Your task to perform on an android device: Go to Reddit.com Image 0: 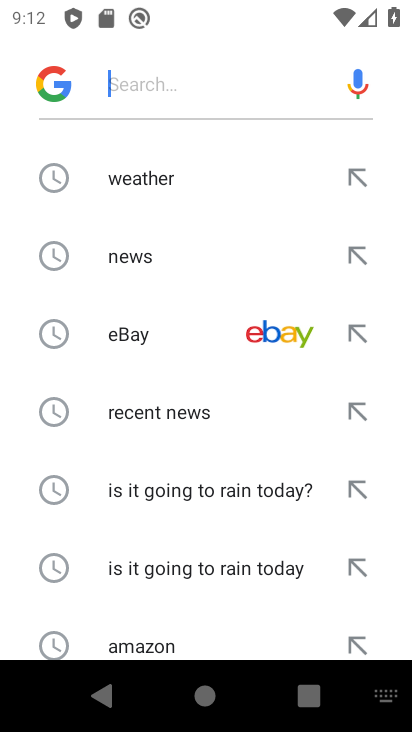
Step 0: press home button
Your task to perform on an android device: Go to Reddit.com Image 1: 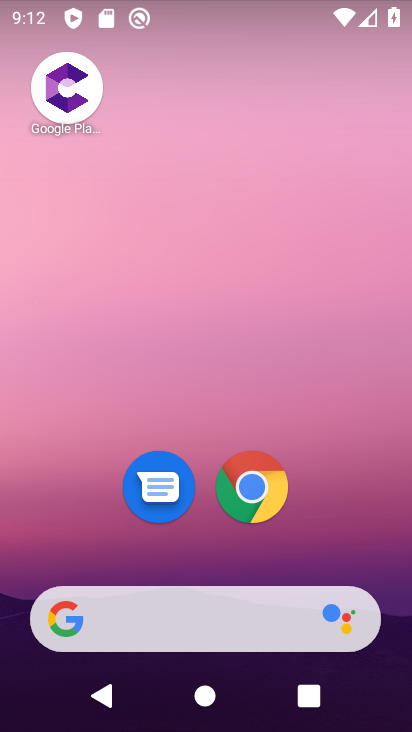
Step 1: click (276, 506)
Your task to perform on an android device: Go to Reddit.com Image 2: 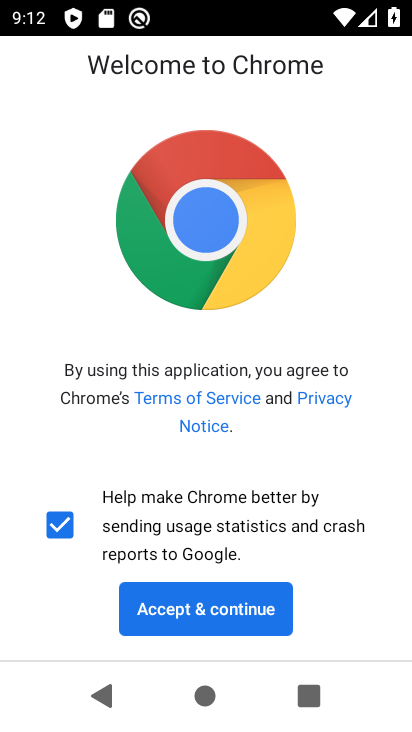
Step 2: click (215, 623)
Your task to perform on an android device: Go to Reddit.com Image 3: 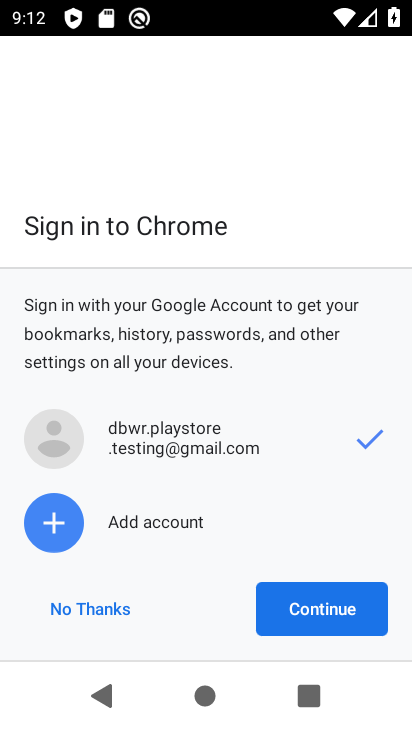
Step 3: click (370, 614)
Your task to perform on an android device: Go to Reddit.com Image 4: 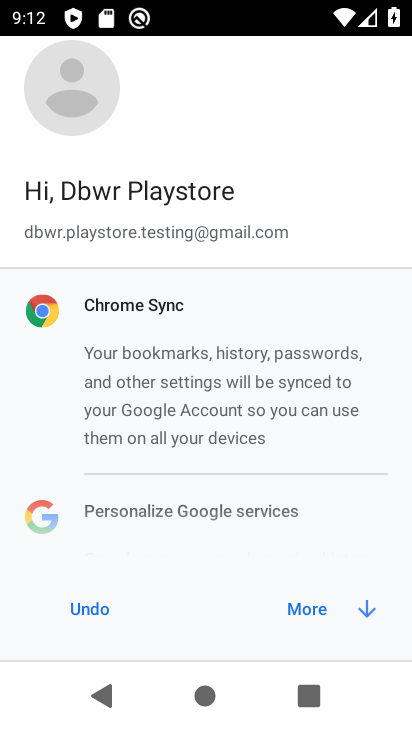
Step 4: click (324, 615)
Your task to perform on an android device: Go to Reddit.com Image 5: 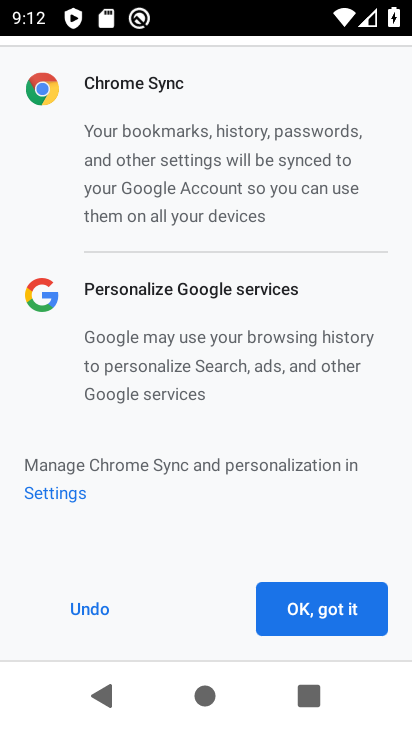
Step 5: click (324, 615)
Your task to perform on an android device: Go to Reddit.com Image 6: 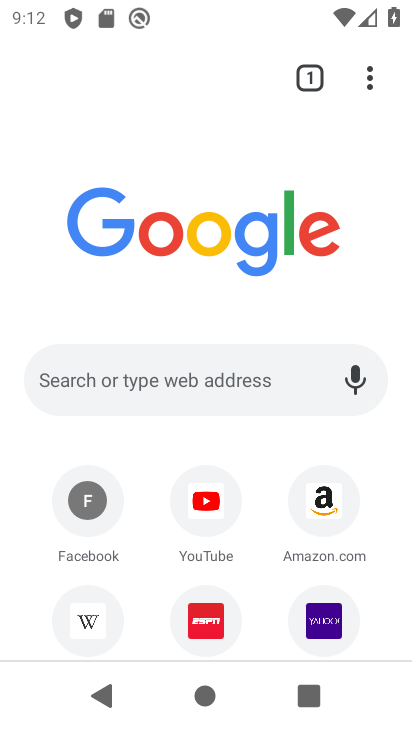
Step 6: click (204, 402)
Your task to perform on an android device: Go to Reddit.com Image 7: 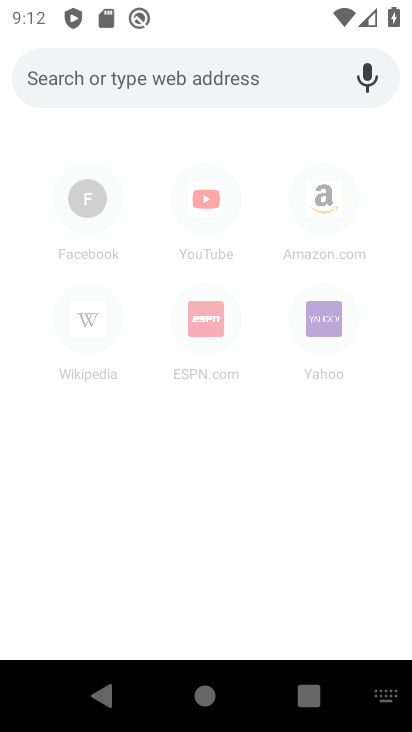
Step 7: type "Reddit.com"
Your task to perform on an android device: Go to Reddit.com Image 8: 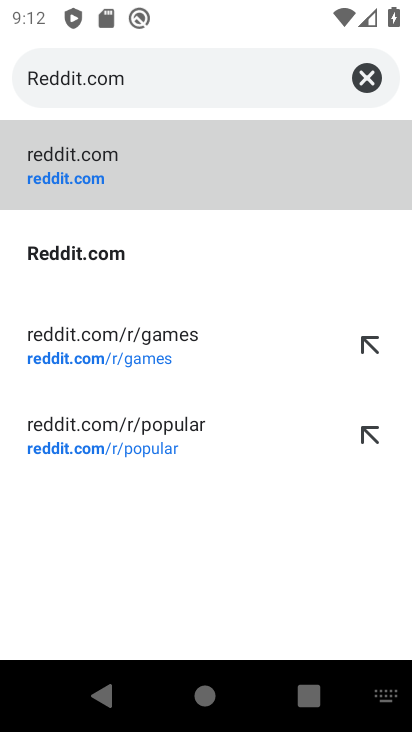
Step 8: click (192, 154)
Your task to perform on an android device: Go to Reddit.com Image 9: 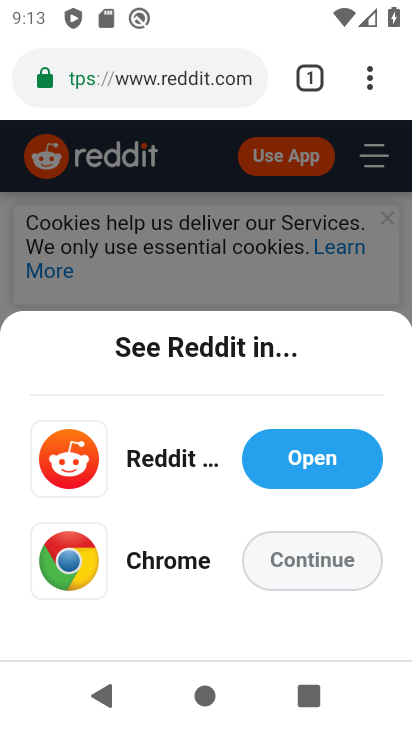
Step 9: task complete